Your task to perform on an android device: toggle location history Image 0: 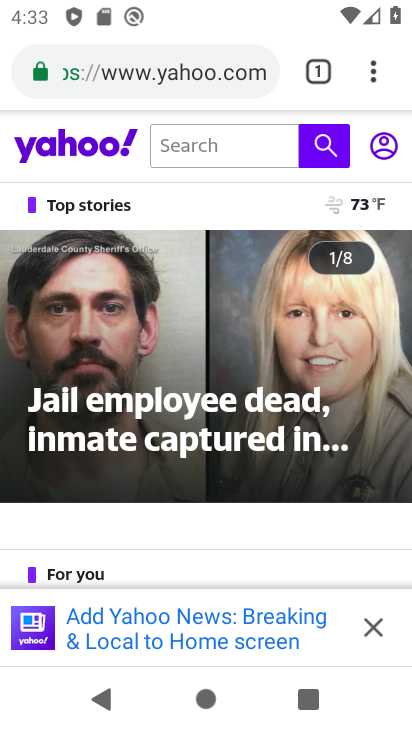
Step 0: press home button
Your task to perform on an android device: toggle location history Image 1: 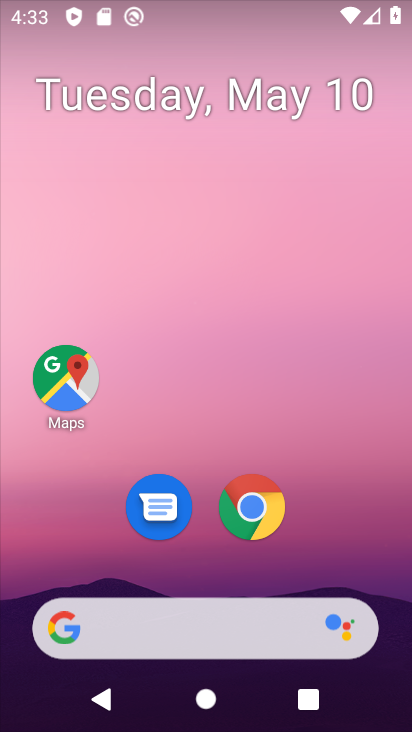
Step 1: drag from (197, 585) to (207, 12)
Your task to perform on an android device: toggle location history Image 2: 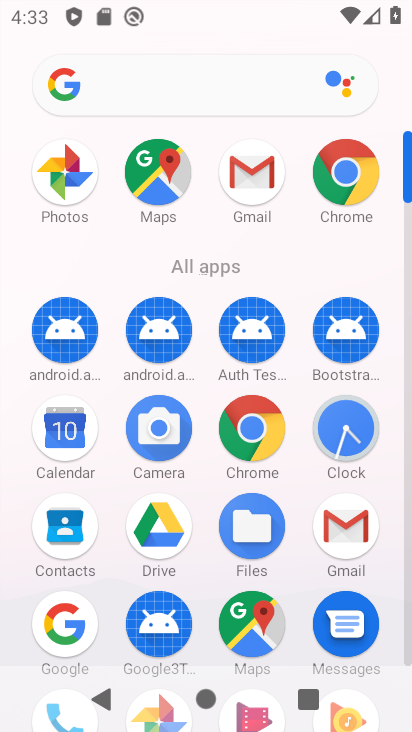
Step 2: drag from (255, 589) to (264, 176)
Your task to perform on an android device: toggle location history Image 3: 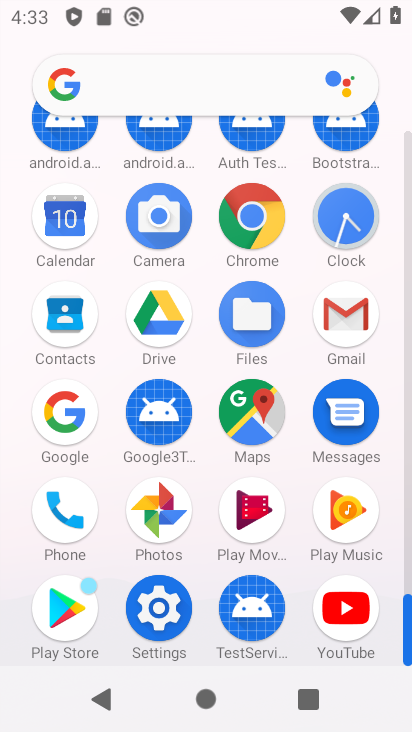
Step 3: click (172, 609)
Your task to perform on an android device: toggle location history Image 4: 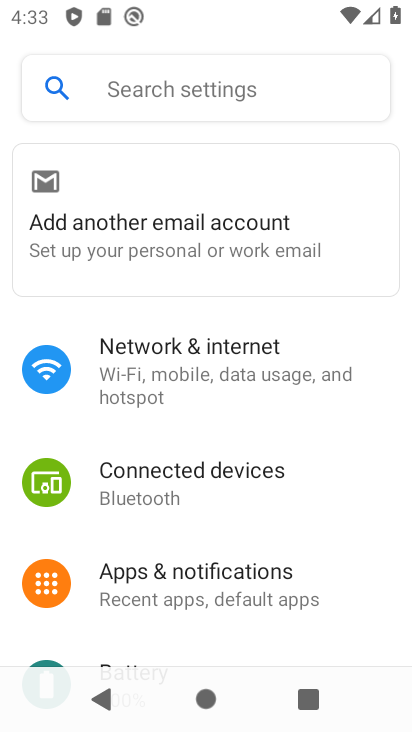
Step 4: drag from (248, 557) to (275, 251)
Your task to perform on an android device: toggle location history Image 5: 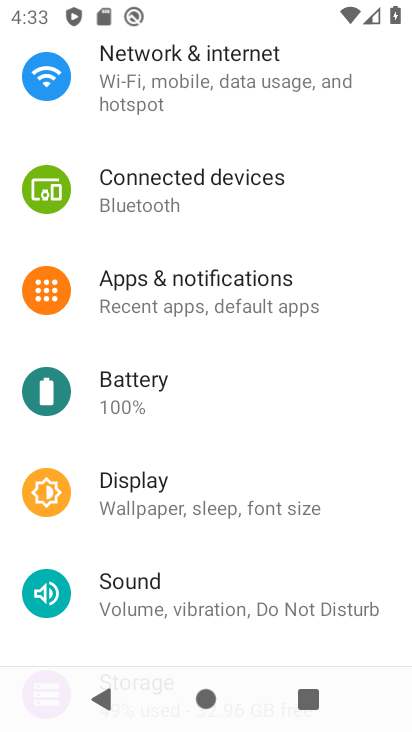
Step 5: drag from (224, 534) to (223, 272)
Your task to perform on an android device: toggle location history Image 6: 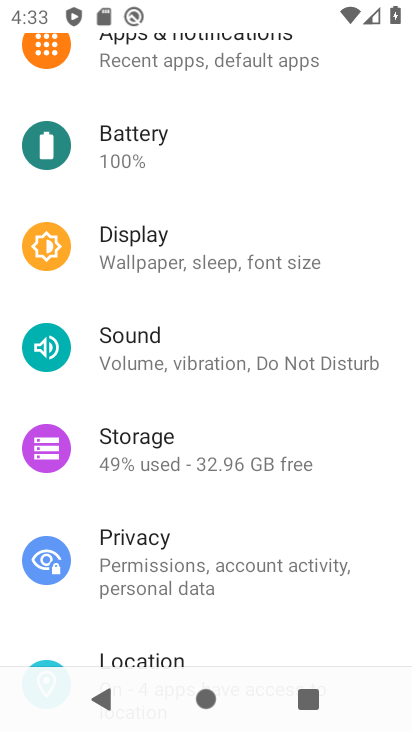
Step 6: drag from (195, 604) to (217, 303)
Your task to perform on an android device: toggle location history Image 7: 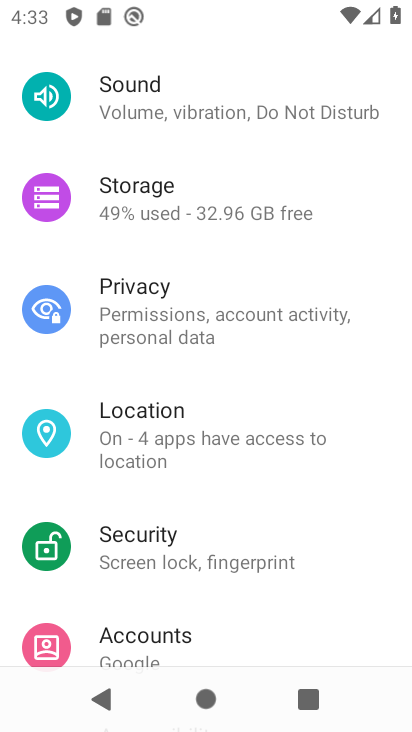
Step 7: click (160, 447)
Your task to perform on an android device: toggle location history Image 8: 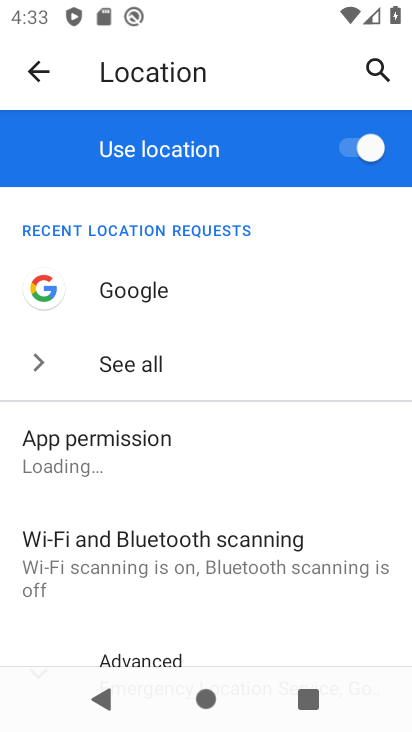
Step 8: drag from (194, 579) to (221, 215)
Your task to perform on an android device: toggle location history Image 9: 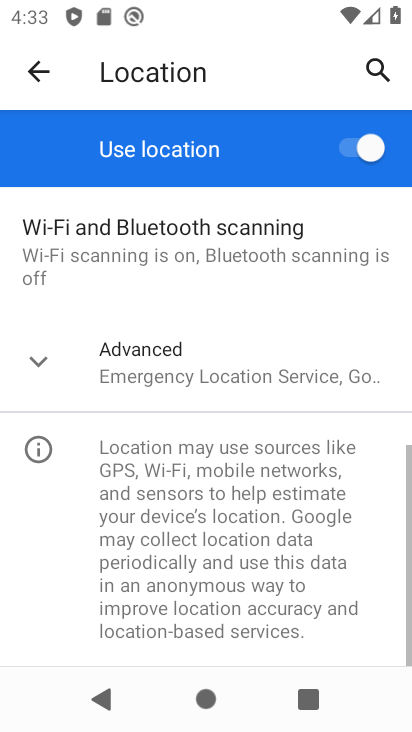
Step 9: click (138, 388)
Your task to perform on an android device: toggle location history Image 10: 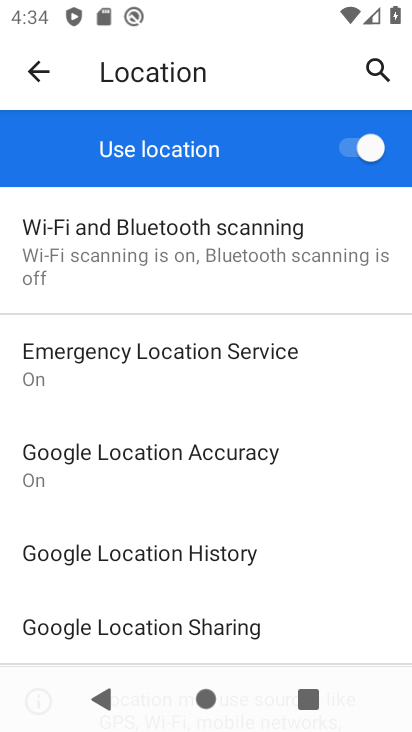
Step 10: click (185, 567)
Your task to perform on an android device: toggle location history Image 11: 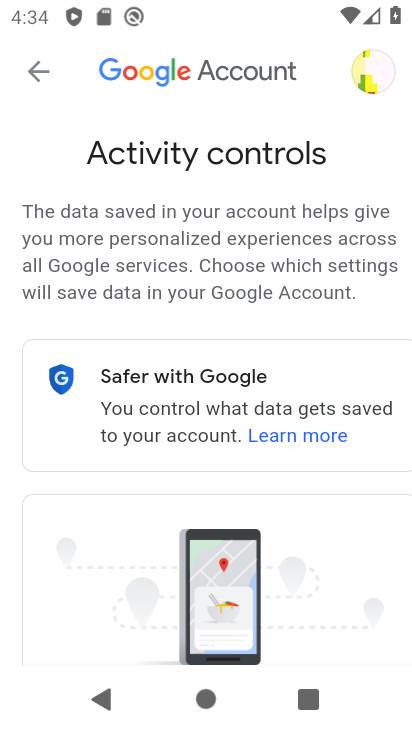
Step 11: drag from (246, 557) to (316, 191)
Your task to perform on an android device: toggle location history Image 12: 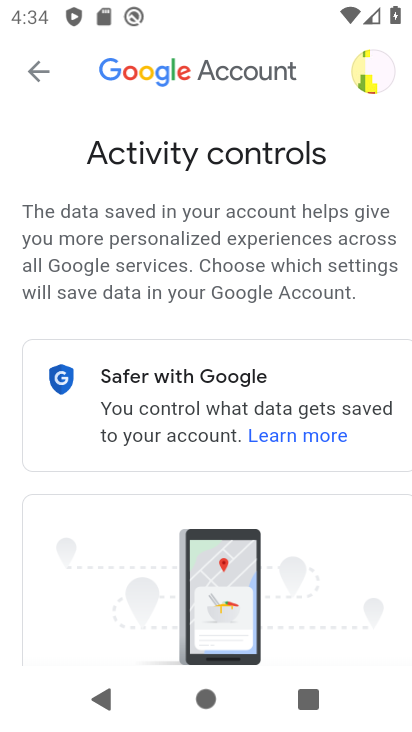
Step 12: drag from (252, 558) to (282, 154)
Your task to perform on an android device: toggle location history Image 13: 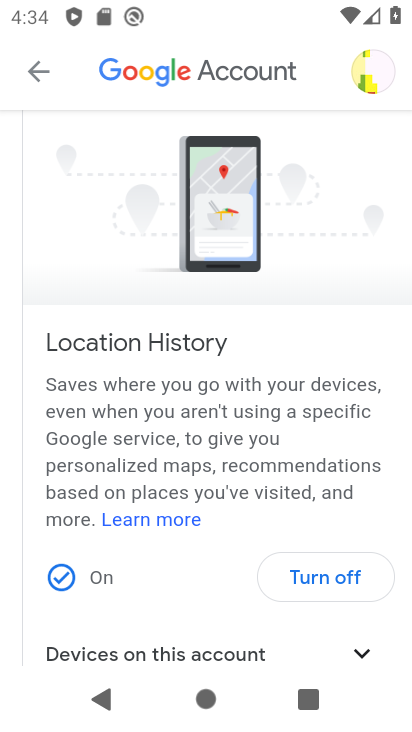
Step 13: click (326, 577)
Your task to perform on an android device: toggle location history Image 14: 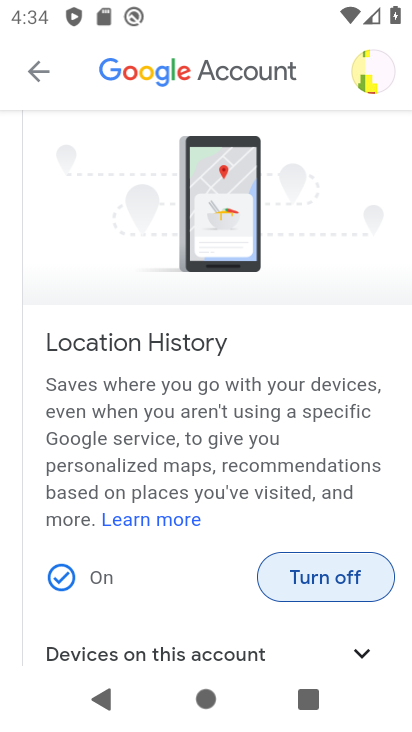
Step 14: click (315, 577)
Your task to perform on an android device: toggle location history Image 15: 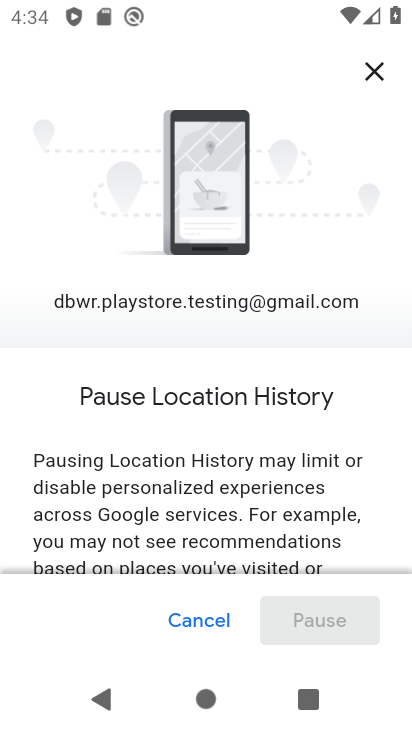
Step 15: drag from (262, 547) to (308, 14)
Your task to perform on an android device: toggle location history Image 16: 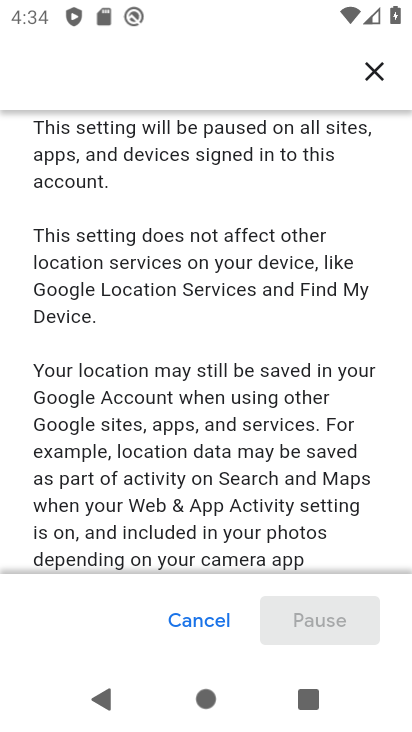
Step 16: drag from (213, 510) to (285, 30)
Your task to perform on an android device: toggle location history Image 17: 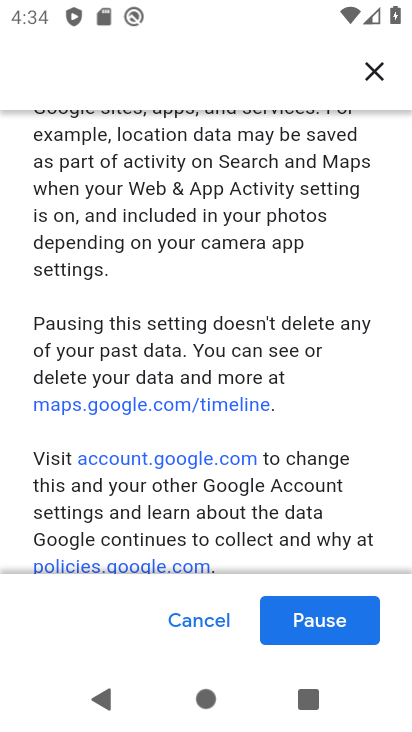
Step 17: drag from (253, 480) to (299, 111)
Your task to perform on an android device: toggle location history Image 18: 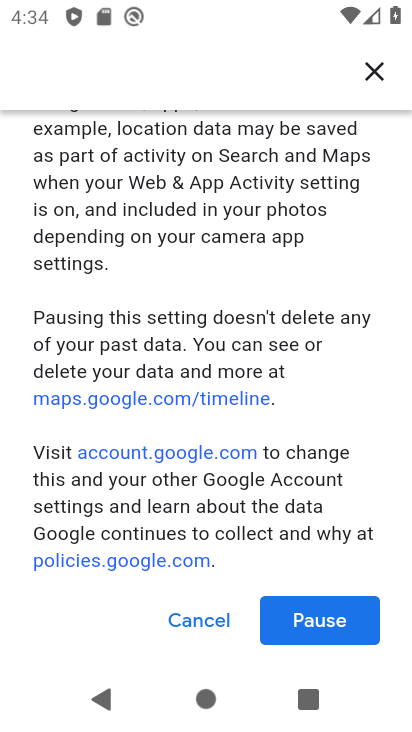
Step 18: click (346, 623)
Your task to perform on an android device: toggle location history Image 19: 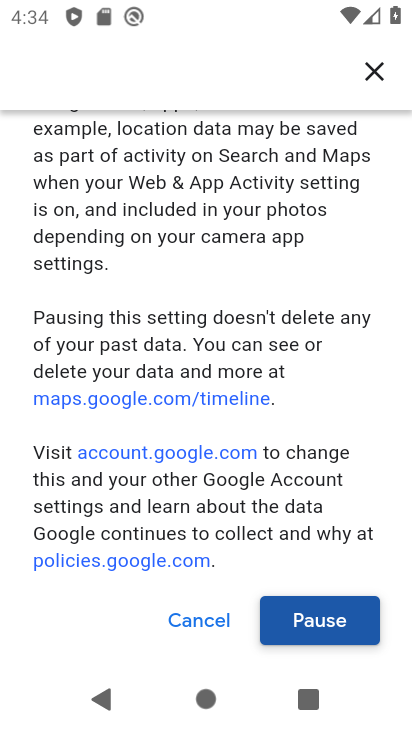
Step 19: click (308, 631)
Your task to perform on an android device: toggle location history Image 20: 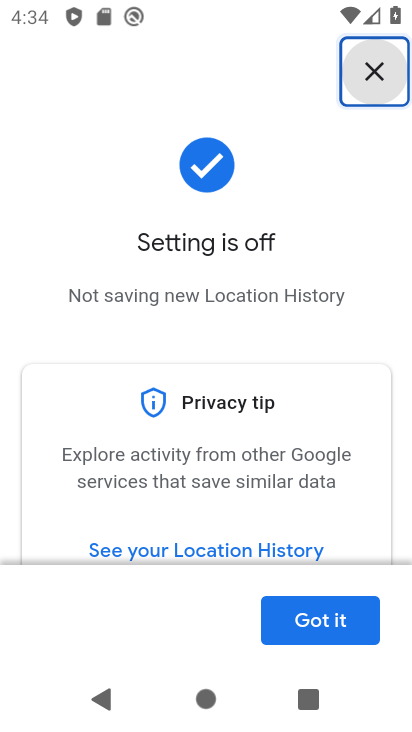
Step 20: click (309, 631)
Your task to perform on an android device: toggle location history Image 21: 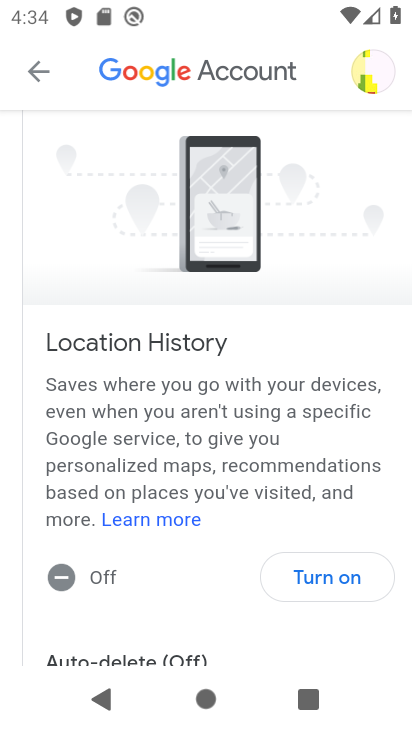
Step 21: task complete